Your task to perform on an android device: Go to privacy settings Image 0: 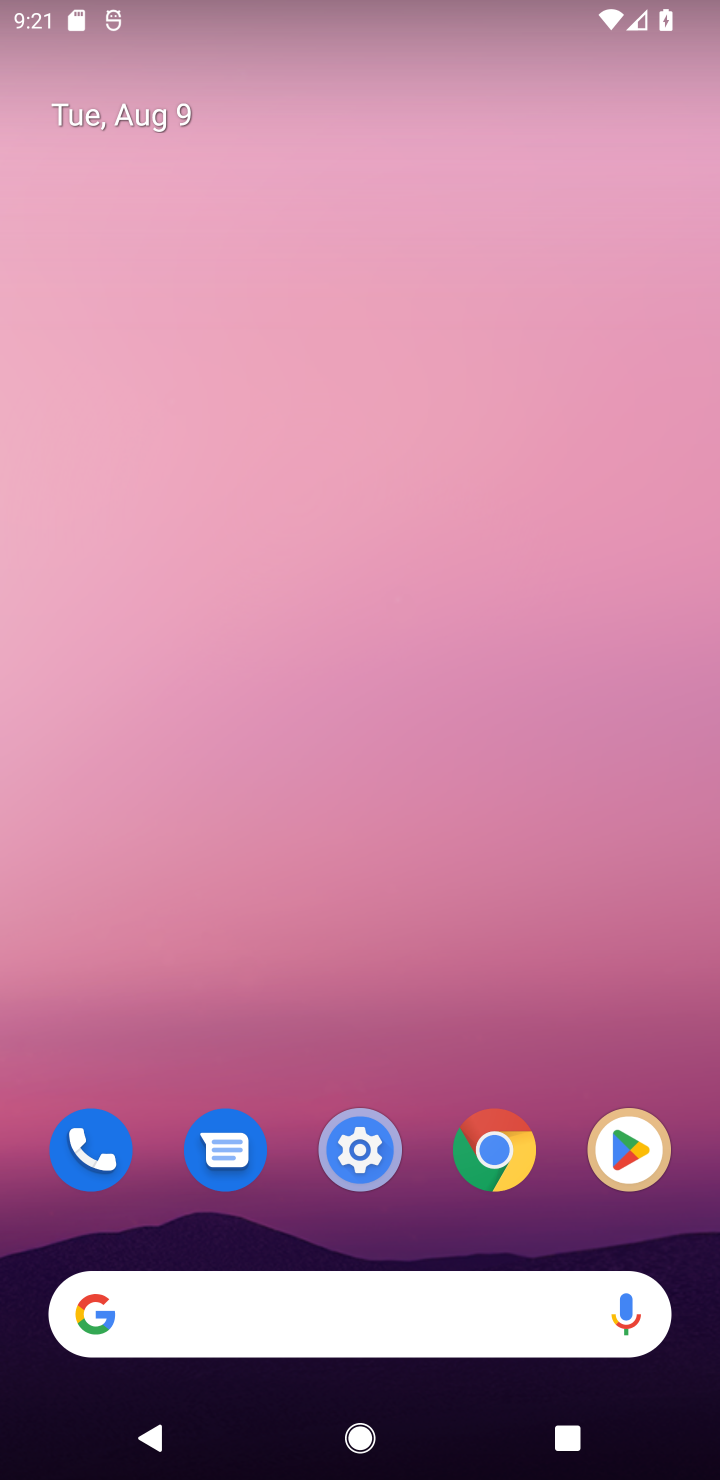
Step 0: drag from (547, 979) to (454, 223)
Your task to perform on an android device: Go to privacy settings Image 1: 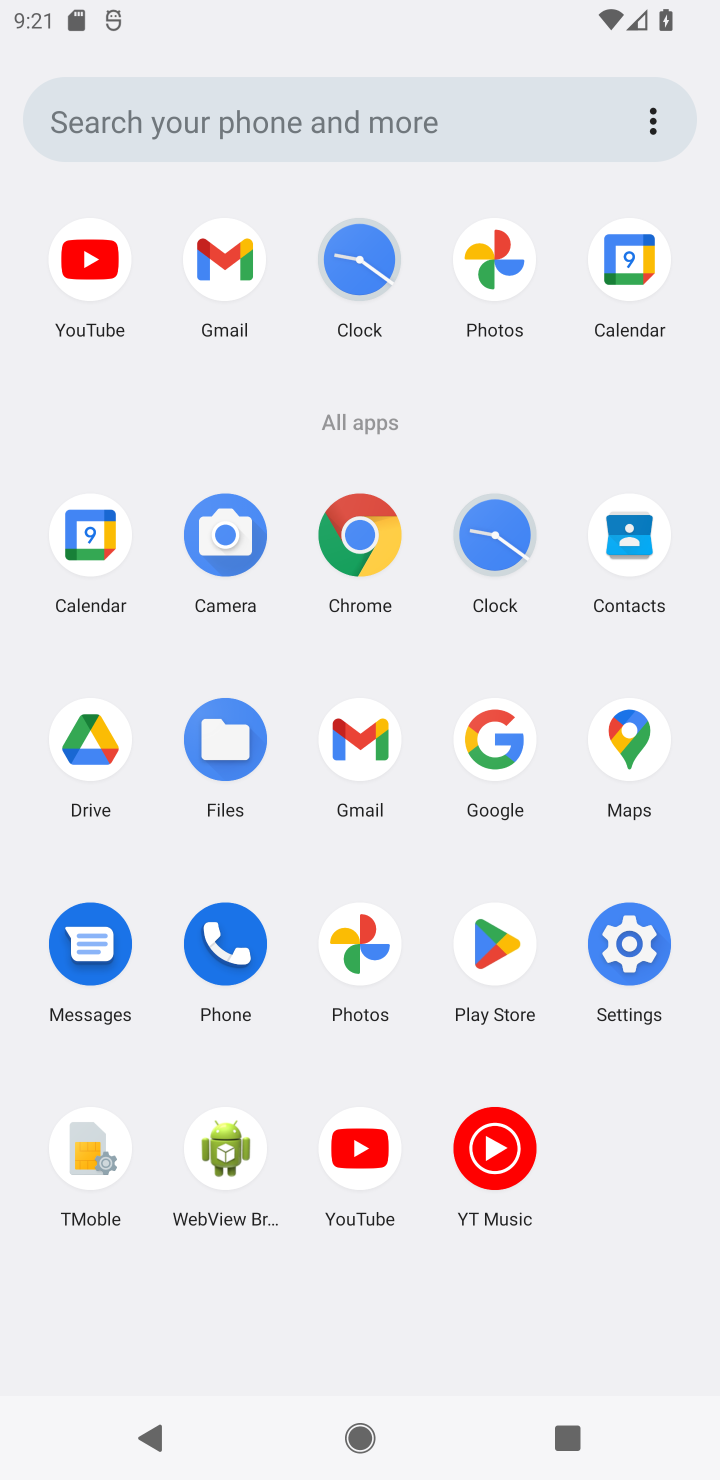
Step 1: click (623, 969)
Your task to perform on an android device: Go to privacy settings Image 2: 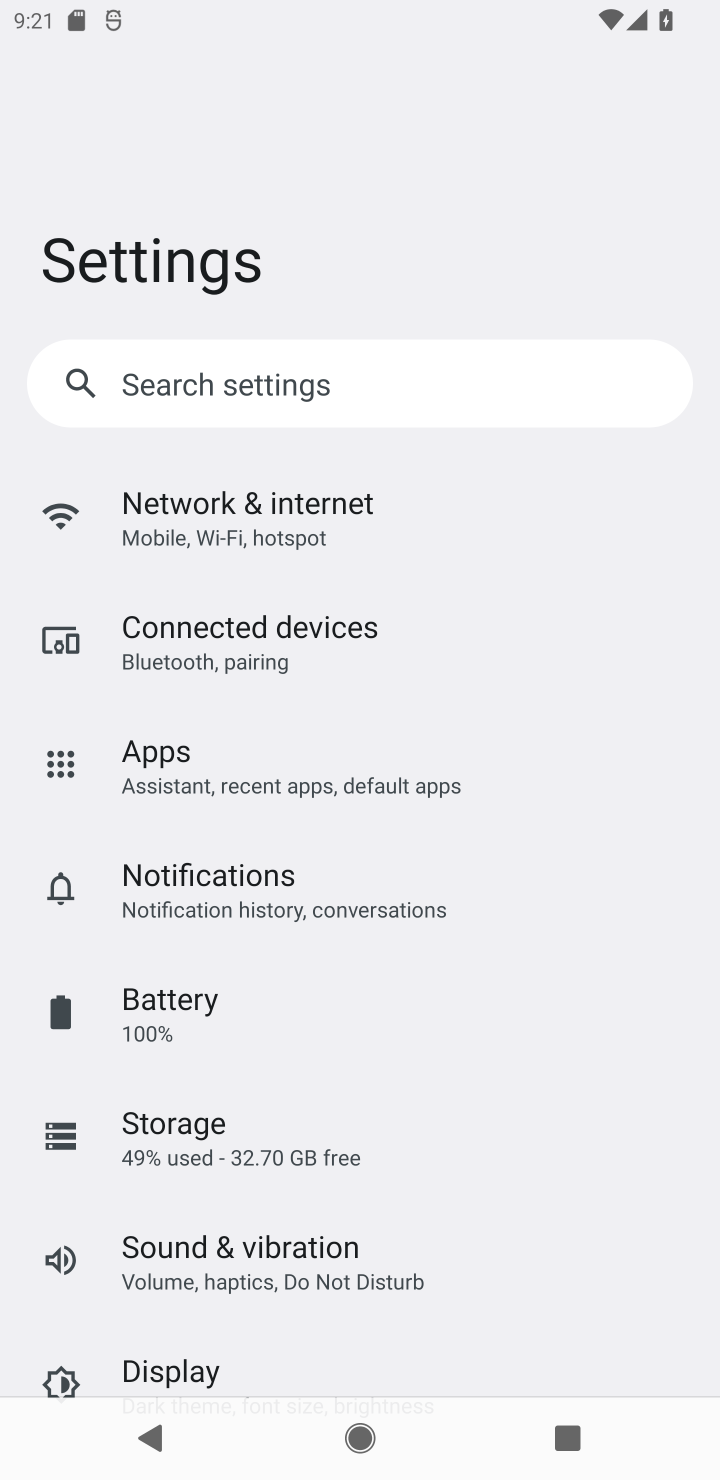
Step 2: drag from (429, 1256) to (316, 519)
Your task to perform on an android device: Go to privacy settings Image 3: 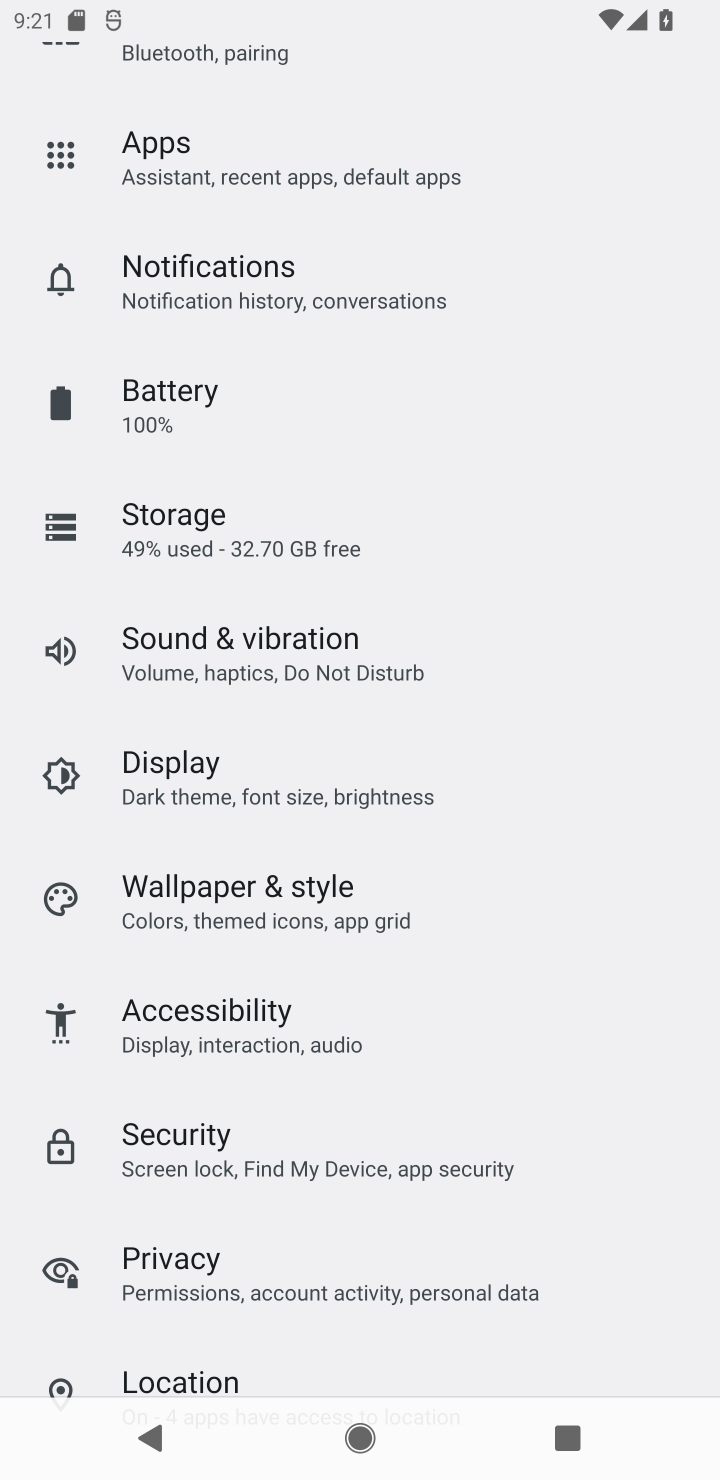
Step 3: click (251, 1270)
Your task to perform on an android device: Go to privacy settings Image 4: 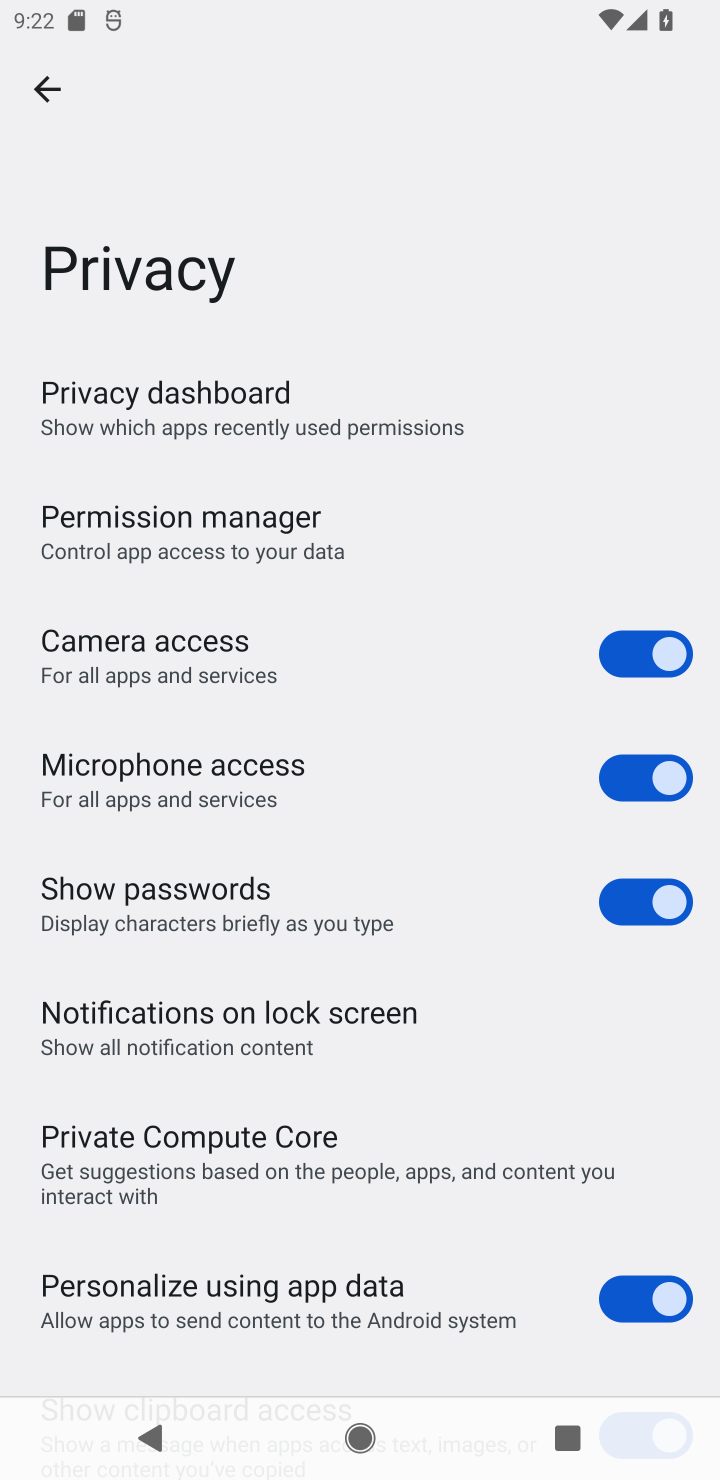
Step 4: task complete